Your task to perform on an android device: Go to calendar. Show me events next week Image 0: 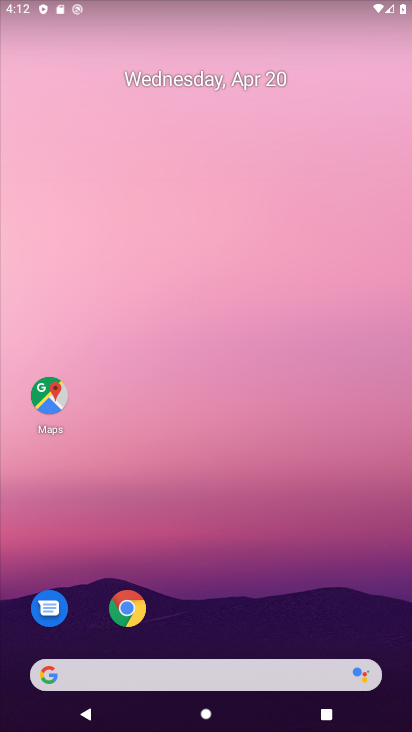
Step 0: drag from (262, 579) to (244, 4)
Your task to perform on an android device: Go to calendar. Show me events next week Image 1: 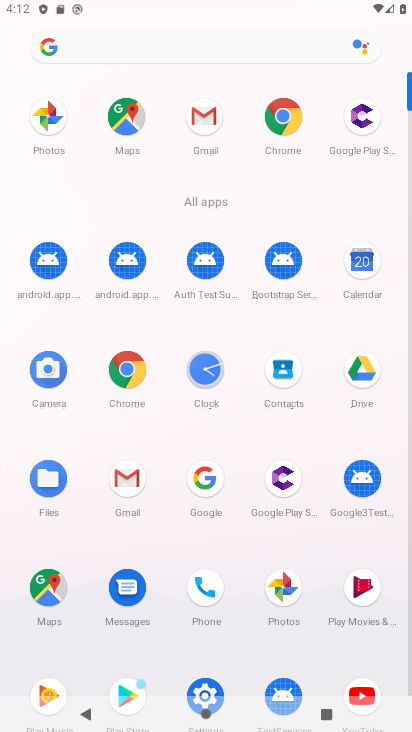
Step 1: click (364, 261)
Your task to perform on an android device: Go to calendar. Show me events next week Image 2: 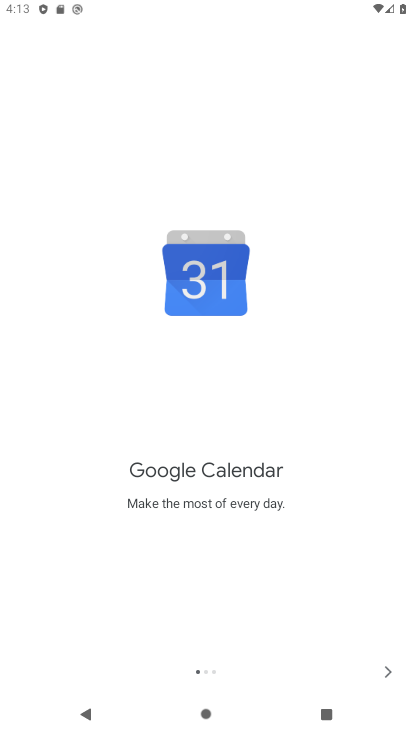
Step 2: click (387, 672)
Your task to perform on an android device: Go to calendar. Show me events next week Image 3: 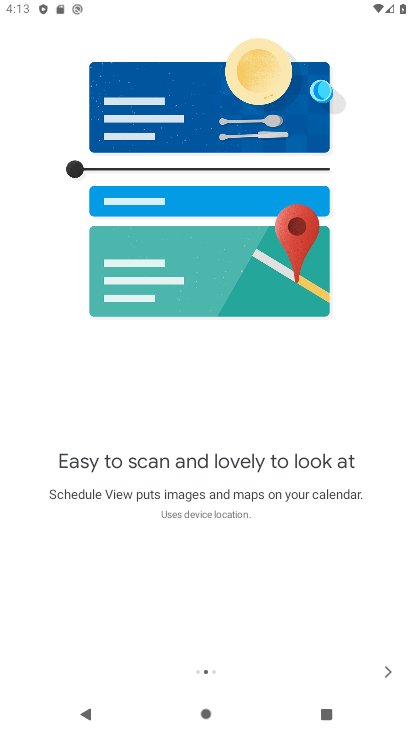
Step 3: click (387, 672)
Your task to perform on an android device: Go to calendar. Show me events next week Image 4: 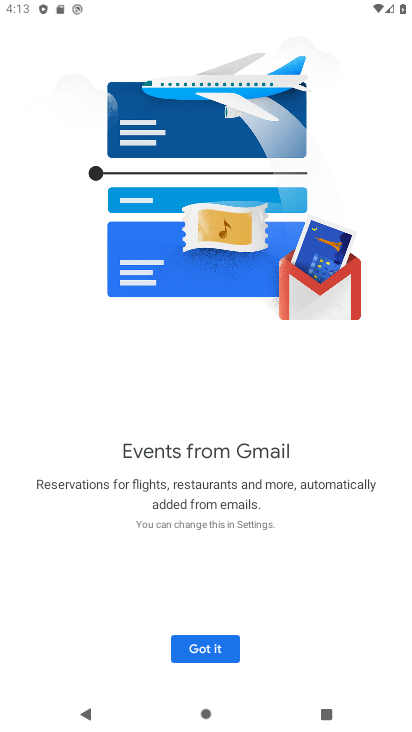
Step 4: click (209, 660)
Your task to perform on an android device: Go to calendar. Show me events next week Image 5: 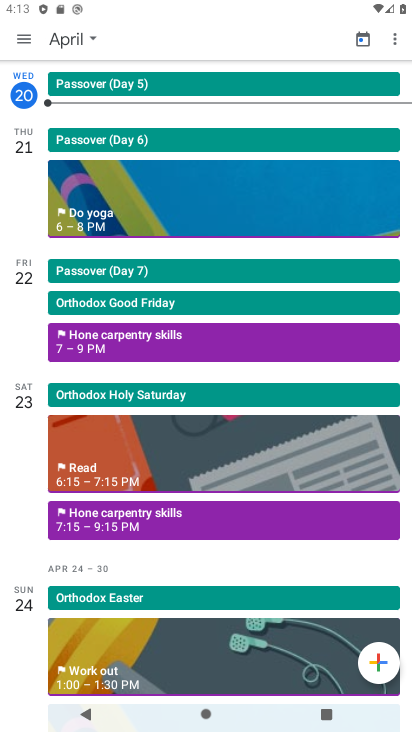
Step 5: click (15, 46)
Your task to perform on an android device: Go to calendar. Show me events next week Image 6: 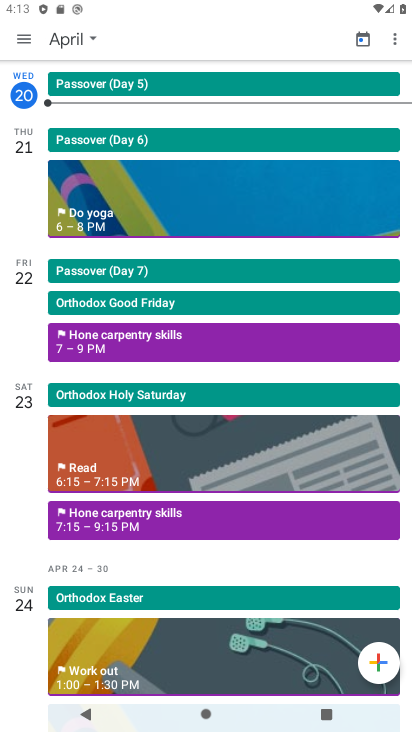
Step 6: click (19, 41)
Your task to perform on an android device: Go to calendar. Show me events next week Image 7: 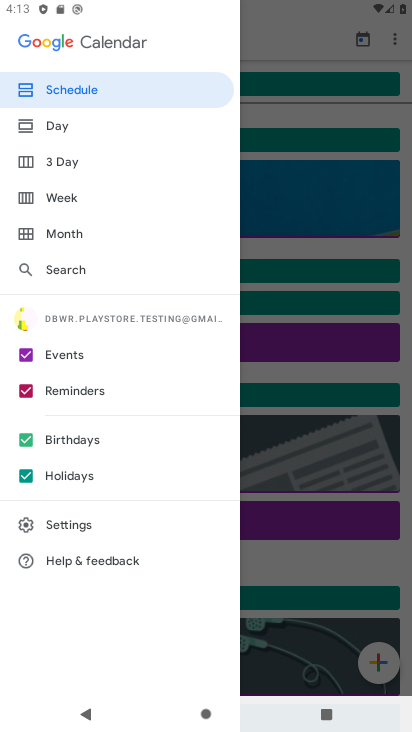
Step 7: click (25, 473)
Your task to perform on an android device: Go to calendar. Show me events next week Image 8: 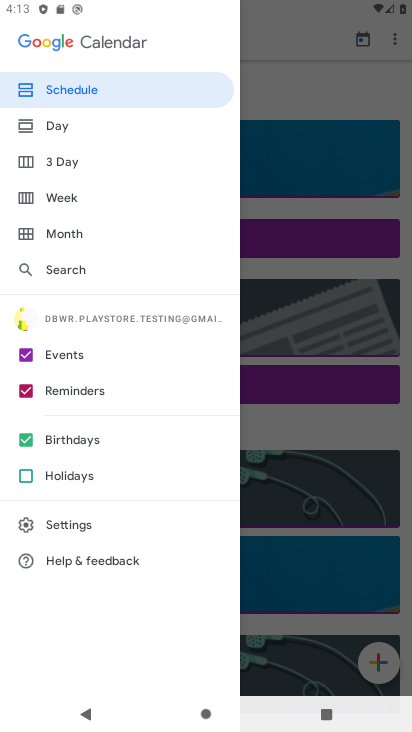
Step 8: click (22, 440)
Your task to perform on an android device: Go to calendar. Show me events next week Image 9: 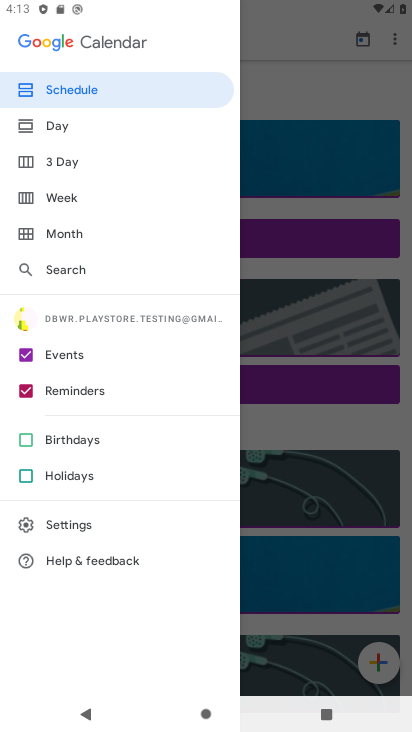
Step 9: click (24, 385)
Your task to perform on an android device: Go to calendar. Show me events next week Image 10: 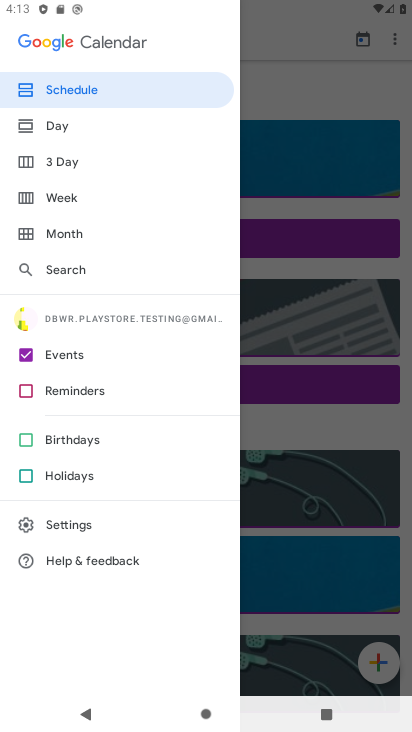
Step 10: click (83, 202)
Your task to perform on an android device: Go to calendar. Show me events next week Image 11: 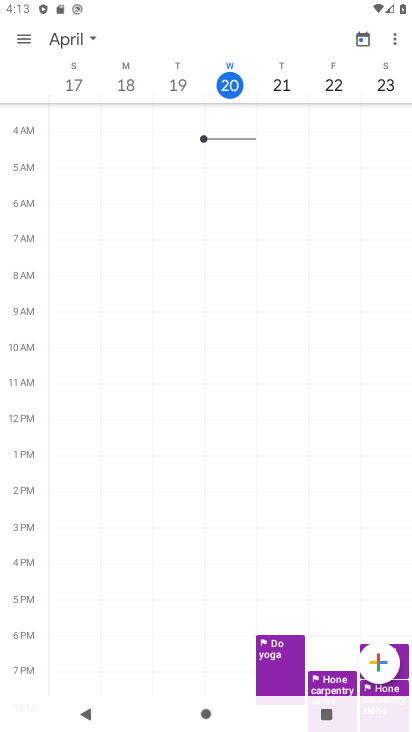
Step 11: click (88, 47)
Your task to perform on an android device: Go to calendar. Show me events next week Image 12: 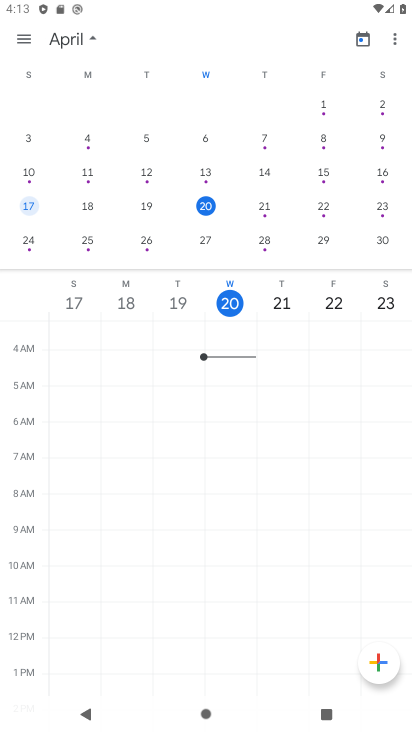
Step 12: click (206, 236)
Your task to perform on an android device: Go to calendar. Show me events next week Image 13: 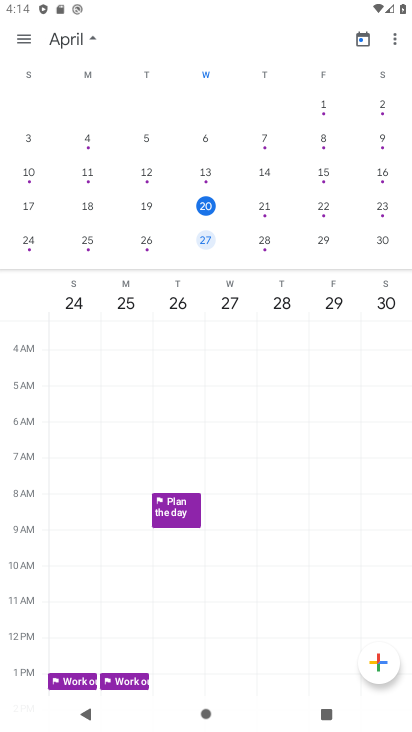
Step 13: task complete